Your task to perform on an android device: check google app version Image 0: 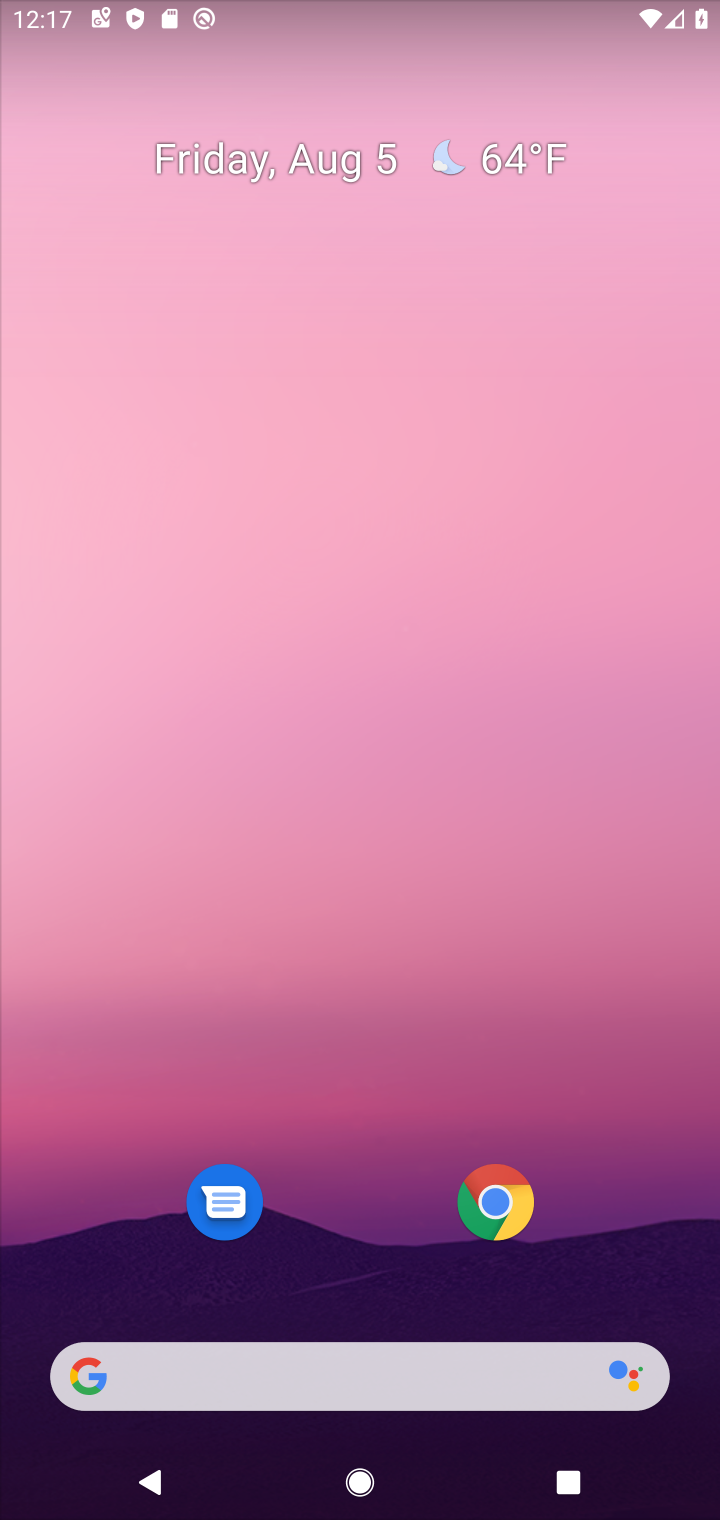
Step 0: drag from (362, 898) to (458, 191)
Your task to perform on an android device: check google app version Image 1: 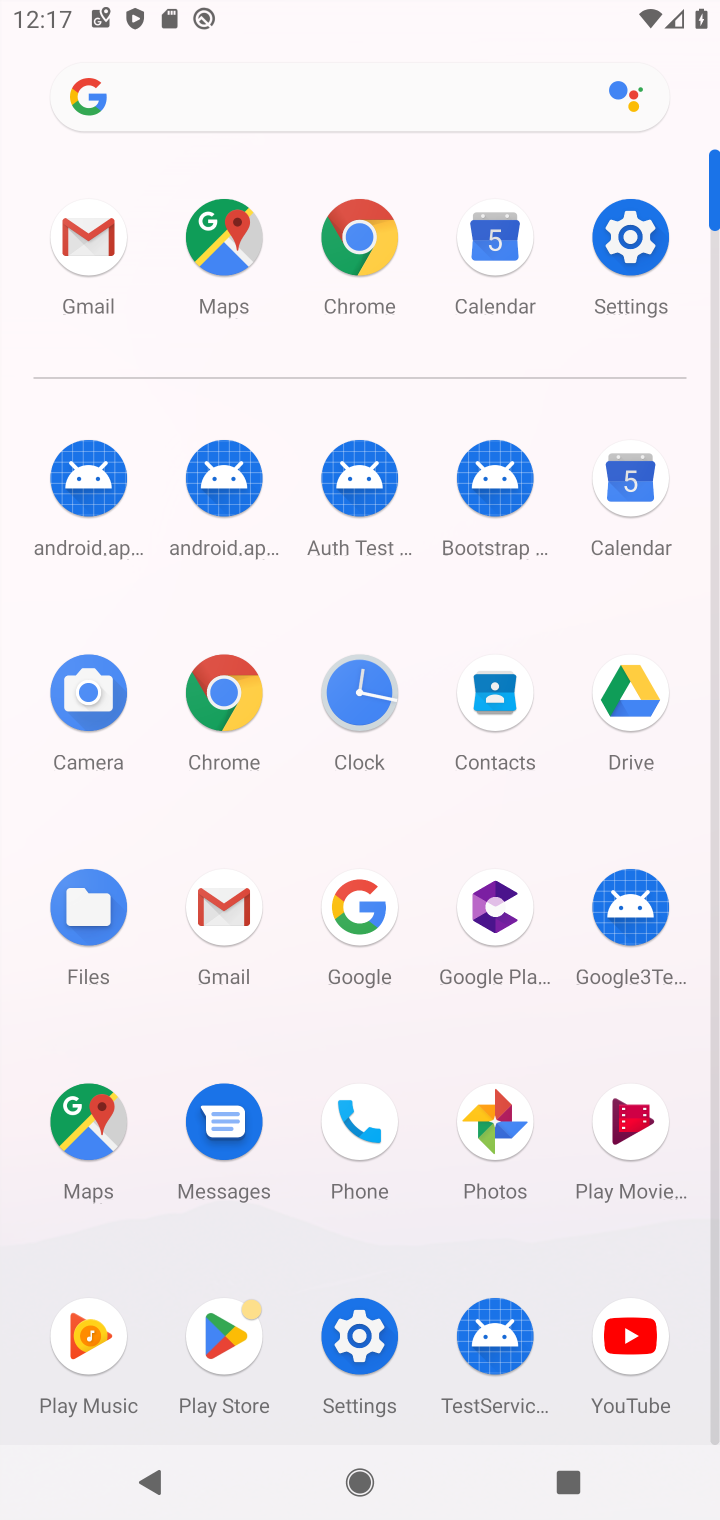
Step 1: click (348, 907)
Your task to perform on an android device: check google app version Image 2: 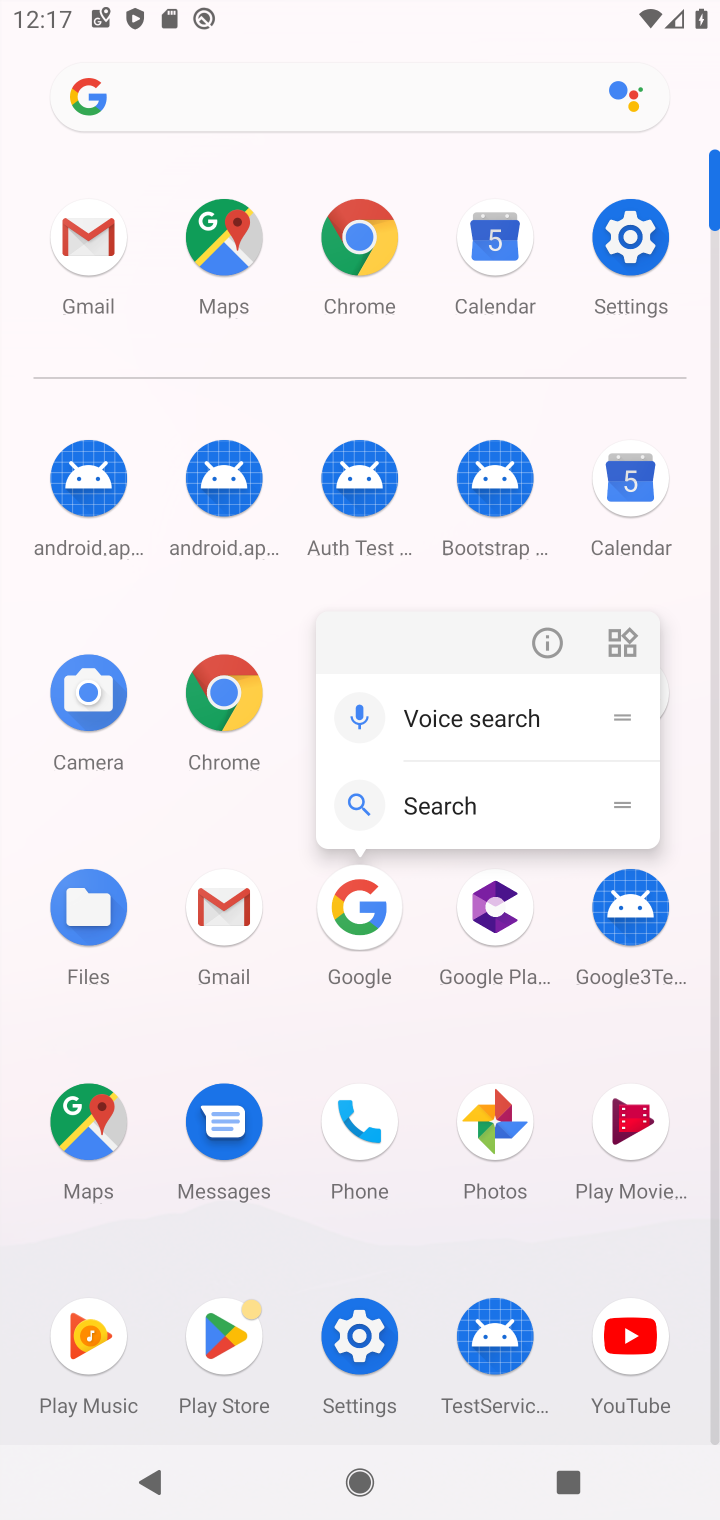
Step 2: click (550, 639)
Your task to perform on an android device: check google app version Image 3: 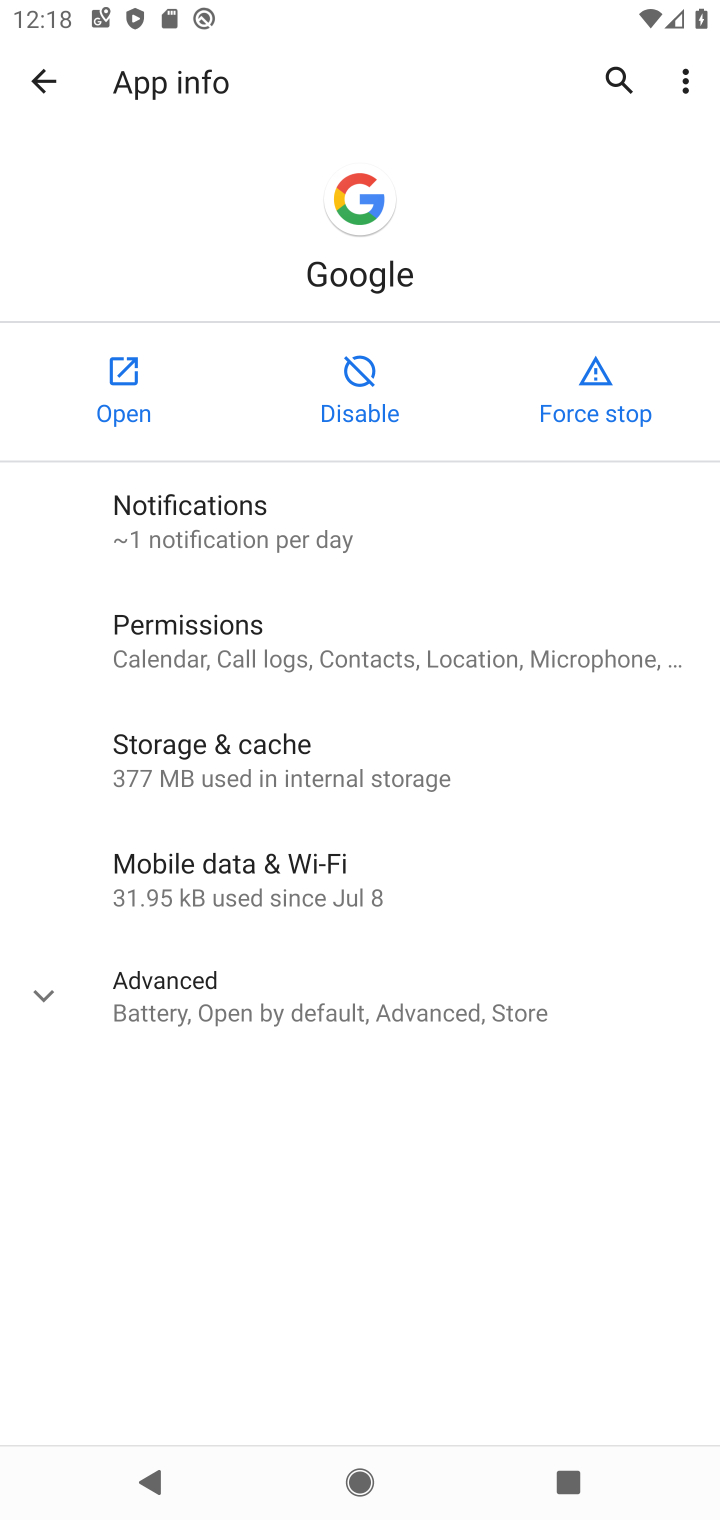
Step 3: click (412, 1015)
Your task to perform on an android device: check google app version Image 4: 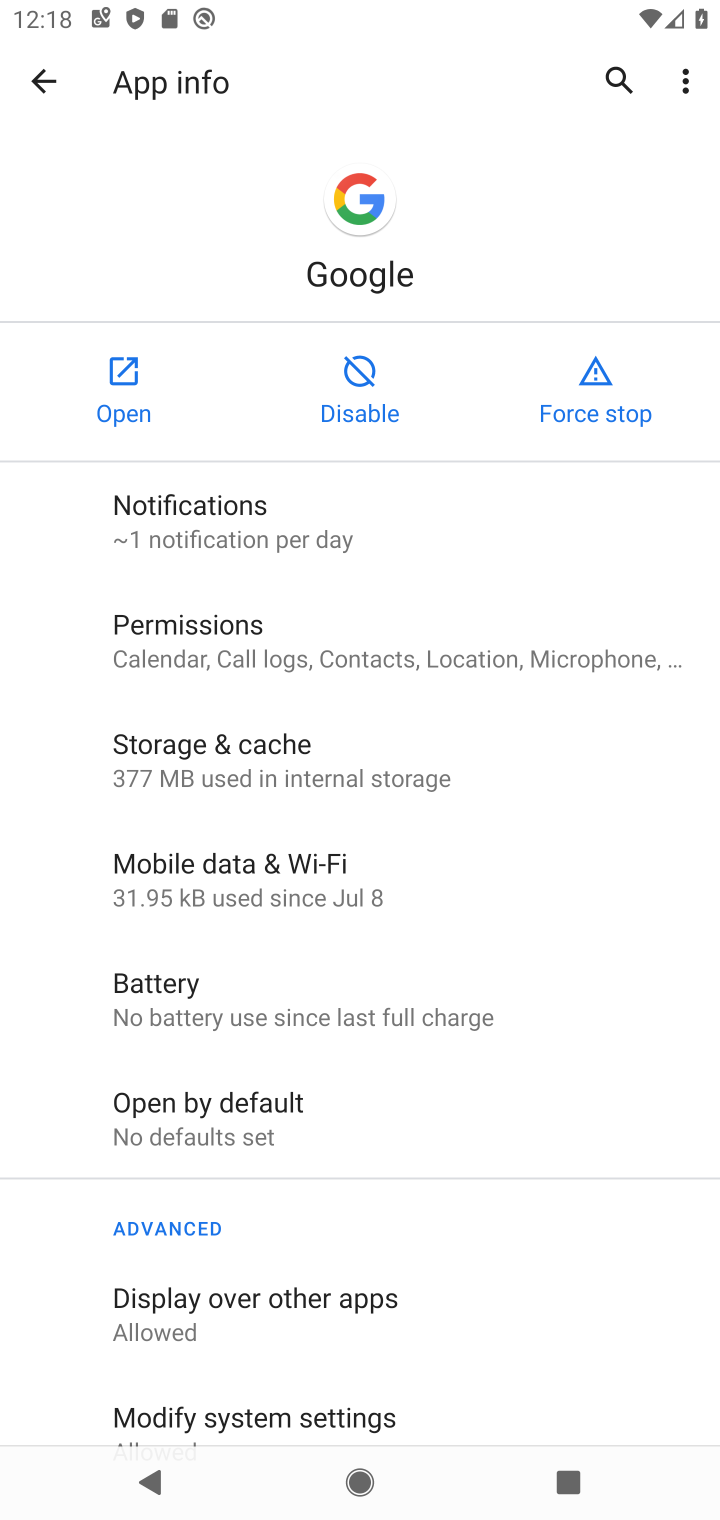
Step 4: task complete